Your task to perform on an android device: Go to Google maps Image 0: 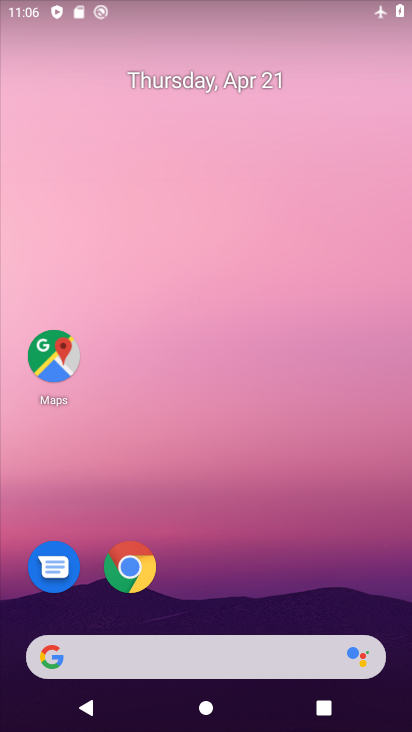
Step 0: click (206, 586)
Your task to perform on an android device: Go to Google maps Image 1: 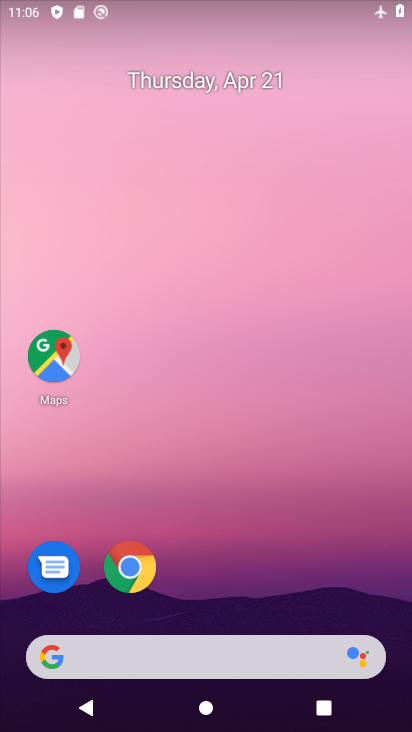
Step 1: click (51, 340)
Your task to perform on an android device: Go to Google maps Image 2: 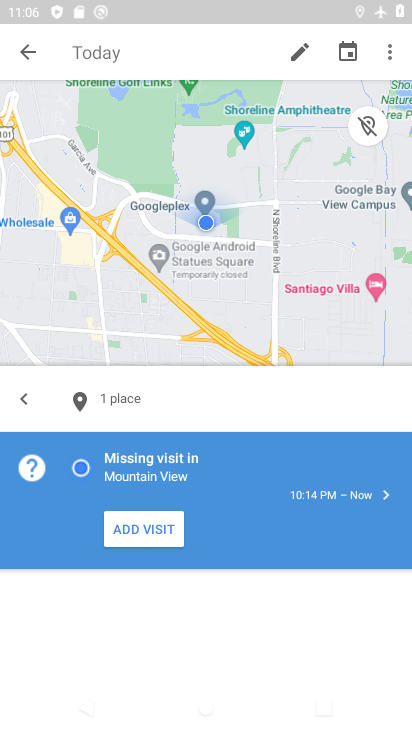
Step 2: task complete